Your task to perform on an android device: turn notification dots off Image 0: 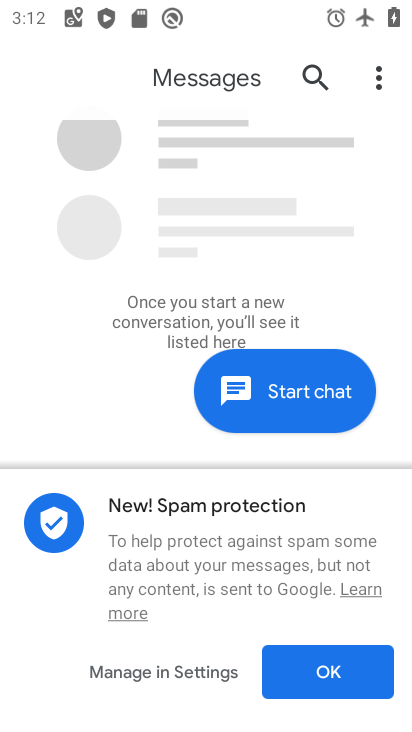
Step 0: press home button
Your task to perform on an android device: turn notification dots off Image 1: 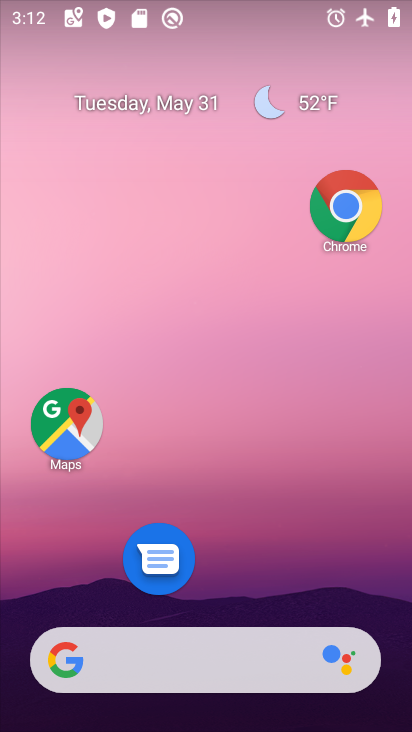
Step 1: drag from (298, 615) to (257, 197)
Your task to perform on an android device: turn notification dots off Image 2: 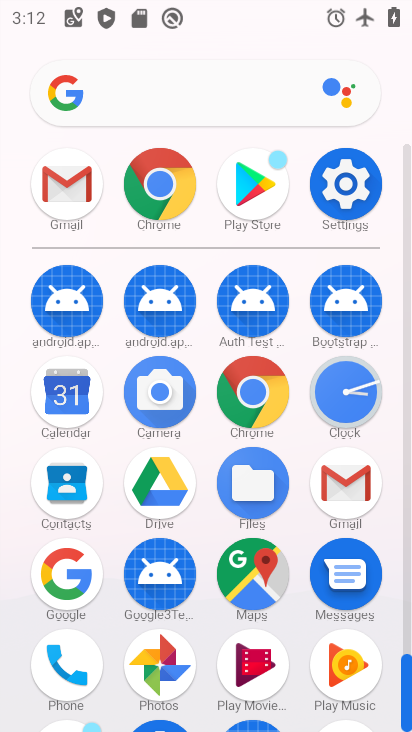
Step 2: drag from (307, 288) to (315, 87)
Your task to perform on an android device: turn notification dots off Image 3: 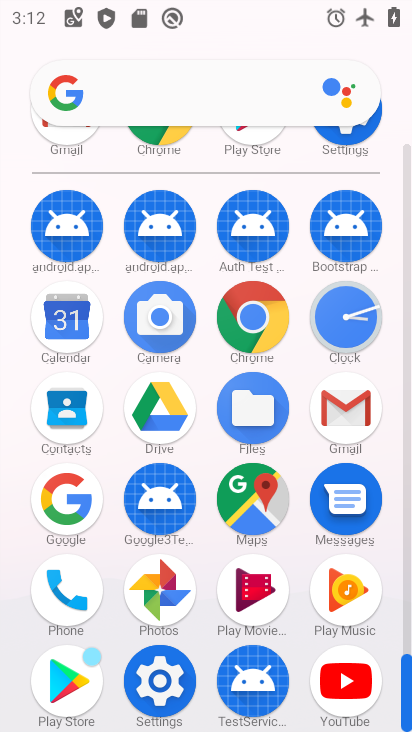
Step 3: click (154, 690)
Your task to perform on an android device: turn notification dots off Image 4: 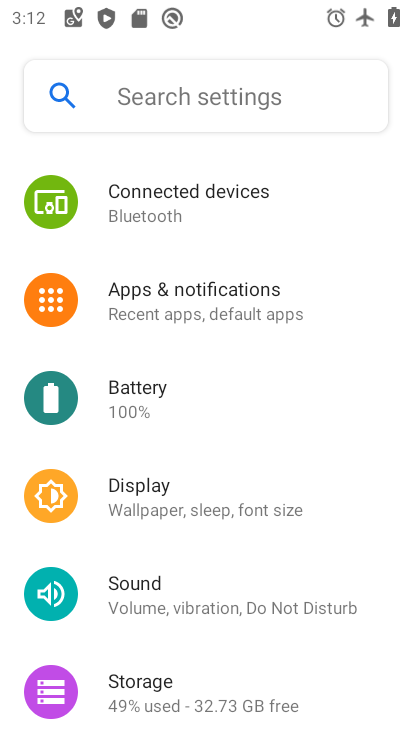
Step 4: click (261, 323)
Your task to perform on an android device: turn notification dots off Image 5: 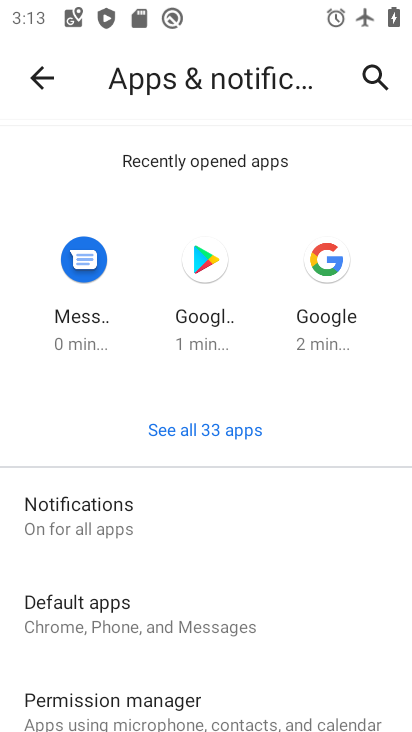
Step 5: drag from (186, 601) to (184, 467)
Your task to perform on an android device: turn notification dots off Image 6: 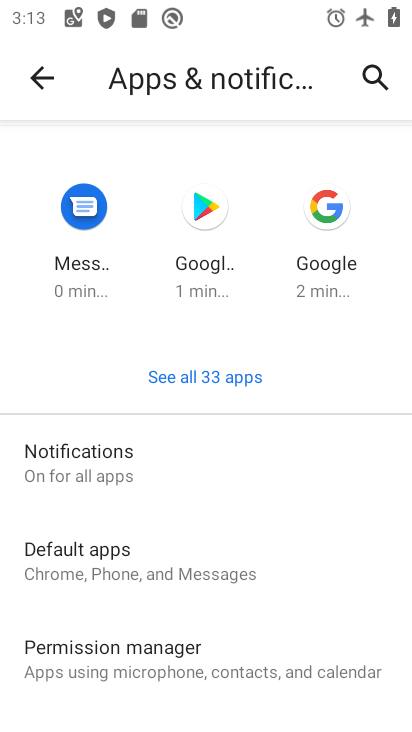
Step 6: click (184, 466)
Your task to perform on an android device: turn notification dots off Image 7: 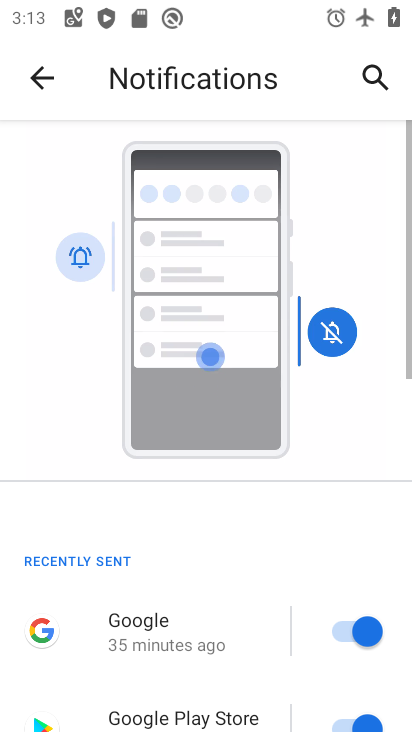
Step 7: drag from (189, 553) to (216, 78)
Your task to perform on an android device: turn notification dots off Image 8: 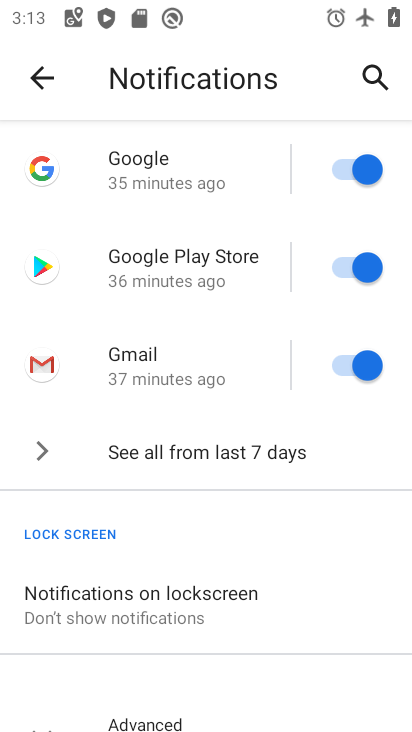
Step 8: drag from (177, 648) to (184, 149)
Your task to perform on an android device: turn notification dots off Image 9: 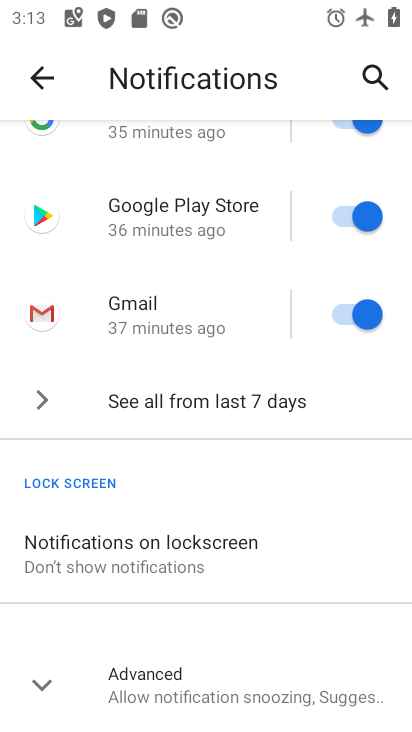
Step 9: click (185, 699)
Your task to perform on an android device: turn notification dots off Image 10: 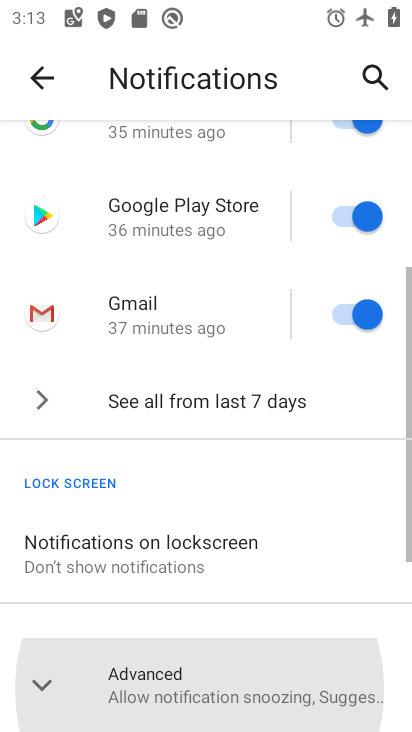
Step 10: drag from (171, 615) to (186, 153)
Your task to perform on an android device: turn notification dots off Image 11: 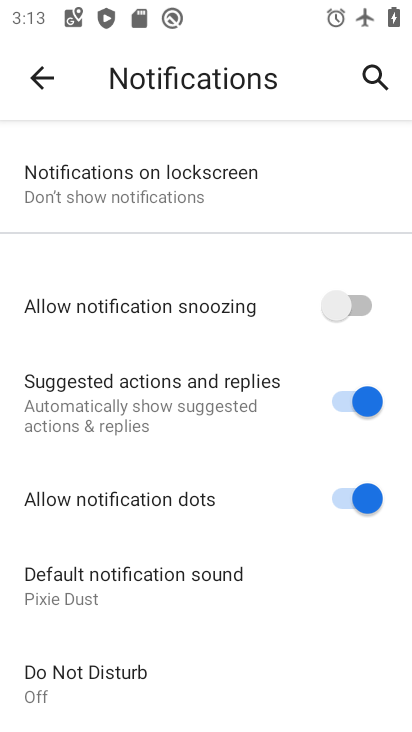
Step 11: click (349, 504)
Your task to perform on an android device: turn notification dots off Image 12: 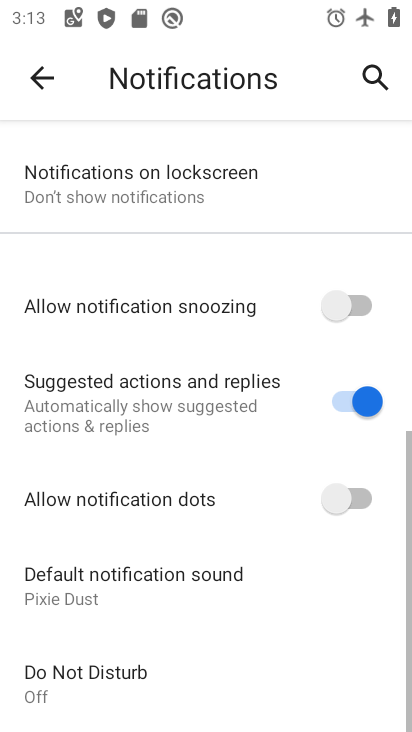
Step 12: task complete